Your task to perform on an android device: Show the shopping cart on target.com. Image 0: 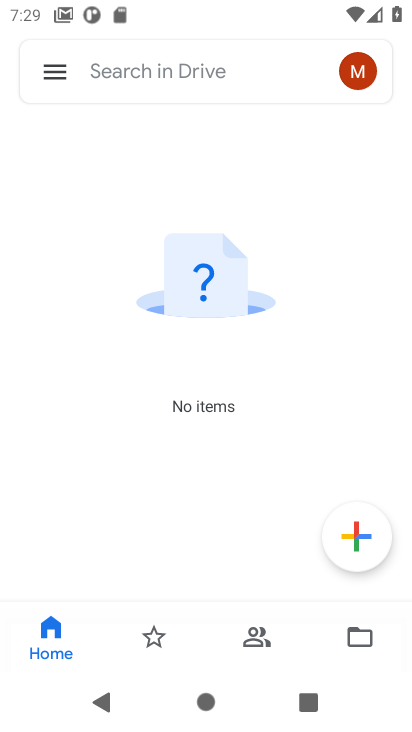
Step 0: click (256, 535)
Your task to perform on an android device: Show the shopping cart on target.com. Image 1: 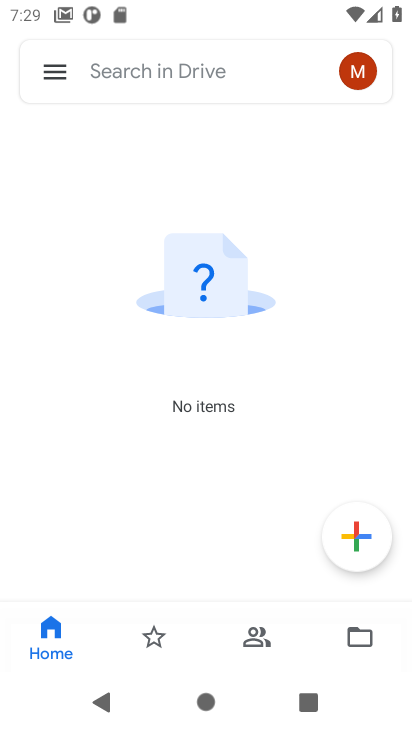
Step 1: press home button
Your task to perform on an android device: Show the shopping cart on target.com. Image 2: 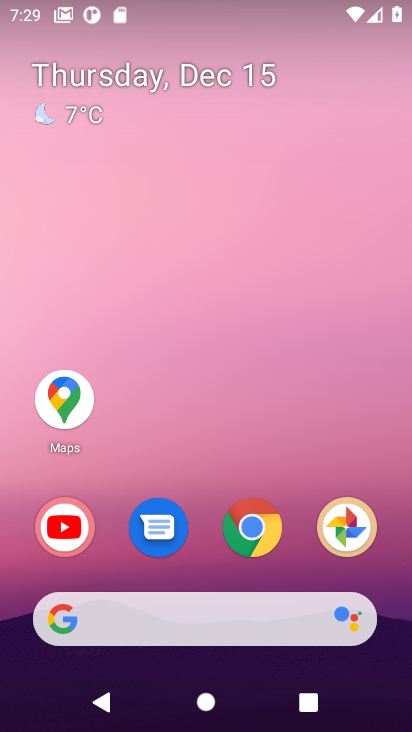
Step 2: click (242, 540)
Your task to perform on an android device: Show the shopping cart on target.com. Image 3: 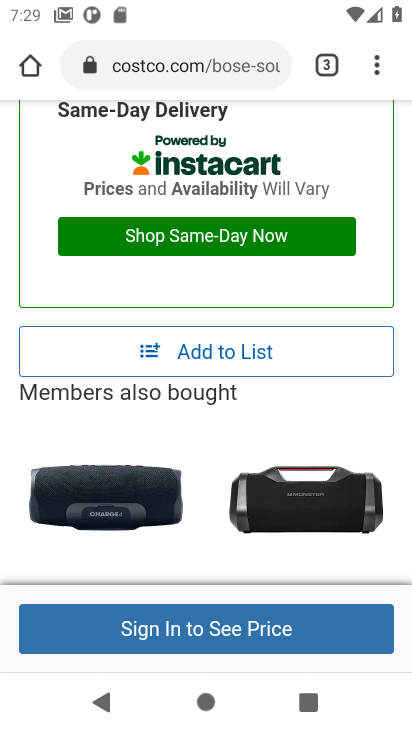
Step 3: click (93, 66)
Your task to perform on an android device: Show the shopping cart on target.com. Image 4: 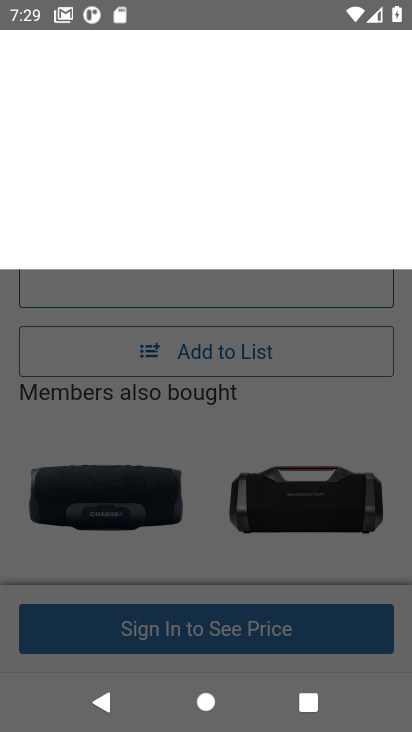
Step 4: click (143, 69)
Your task to perform on an android device: Show the shopping cart on target.com. Image 5: 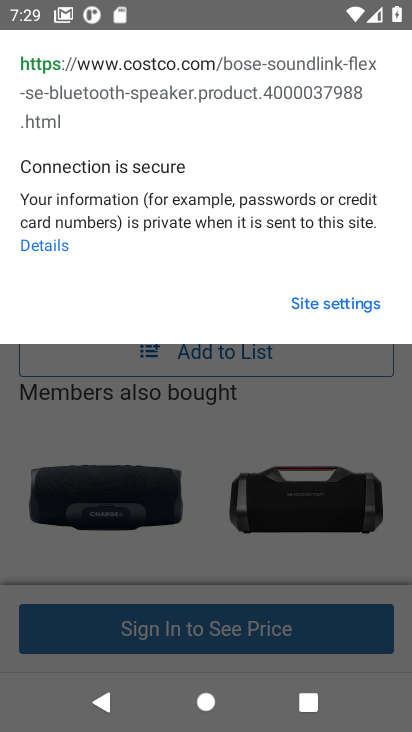
Step 5: click (260, 388)
Your task to perform on an android device: Show the shopping cart on target.com. Image 6: 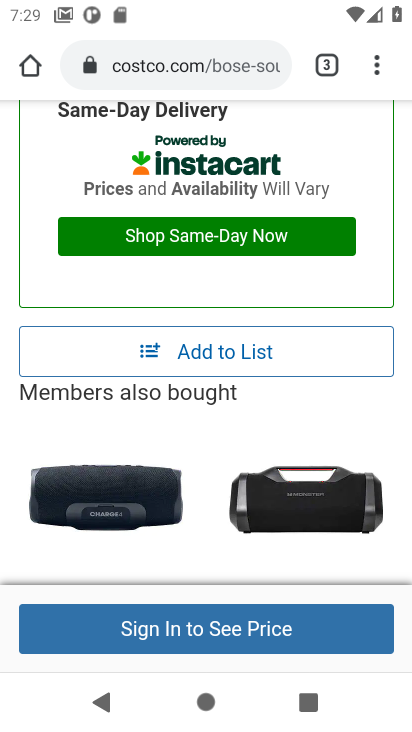
Step 6: click (250, 70)
Your task to perform on an android device: Show the shopping cart on target.com. Image 7: 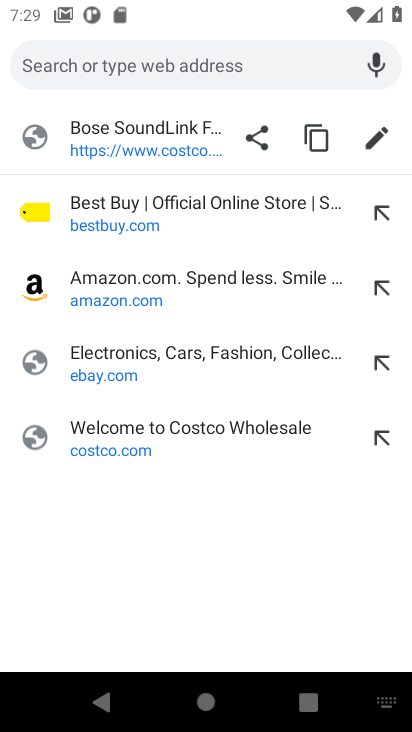
Step 7: type "target"
Your task to perform on an android device: Show the shopping cart on target.com. Image 8: 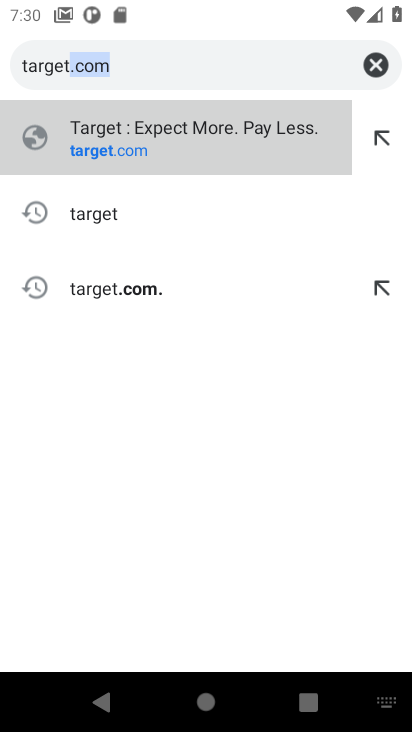
Step 8: click (217, 129)
Your task to perform on an android device: Show the shopping cart on target.com. Image 9: 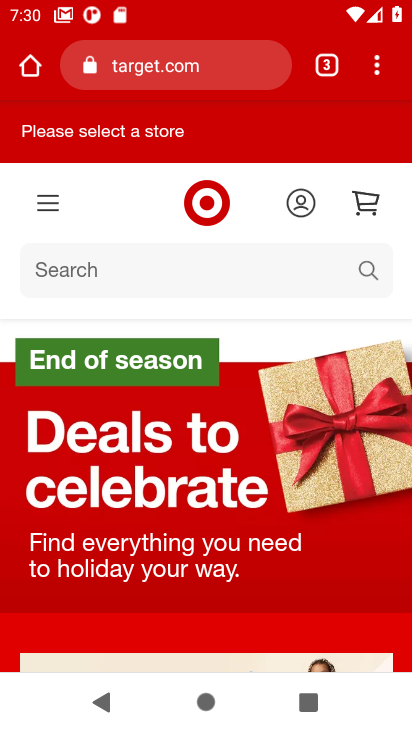
Step 9: click (152, 279)
Your task to perform on an android device: Show the shopping cart on target.com. Image 10: 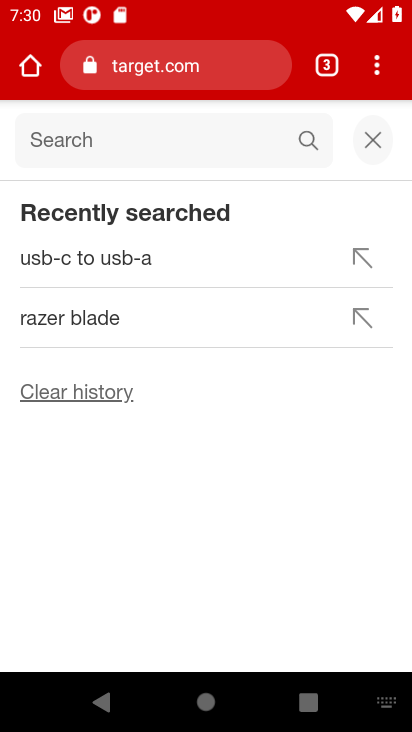
Step 10: click (401, 148)
Your task to perform on an android device: Show the shopping cart on target.com. Image 11: 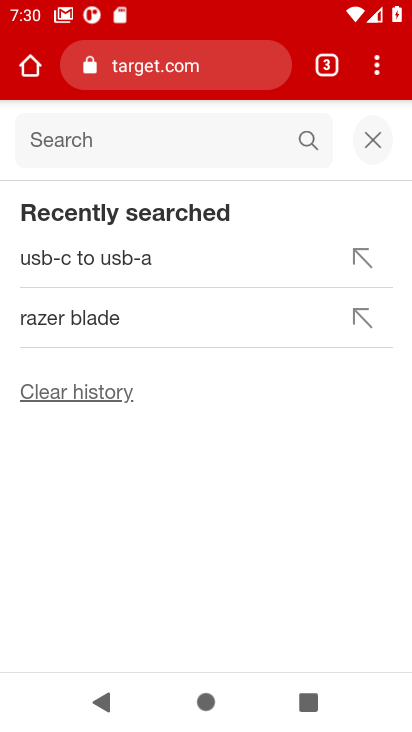
Step 11: click (373, 135)
Your task to perform on an android device: Show the shopping cart on target.com. Image 12: 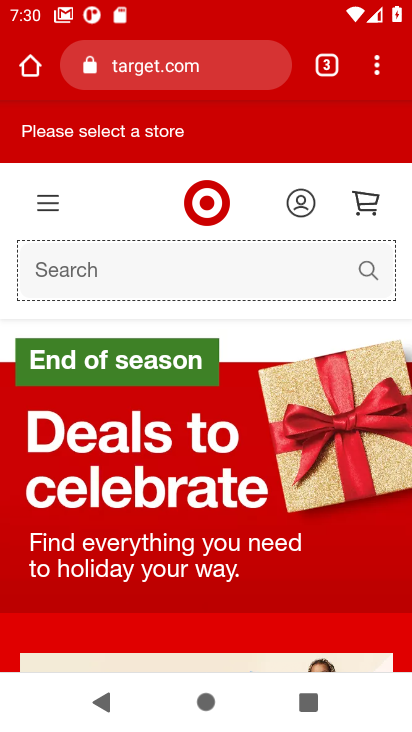
Step 12: click (348, 186)
Your task to perform on an android device: Show the shopping cart on target.com. Image 13: 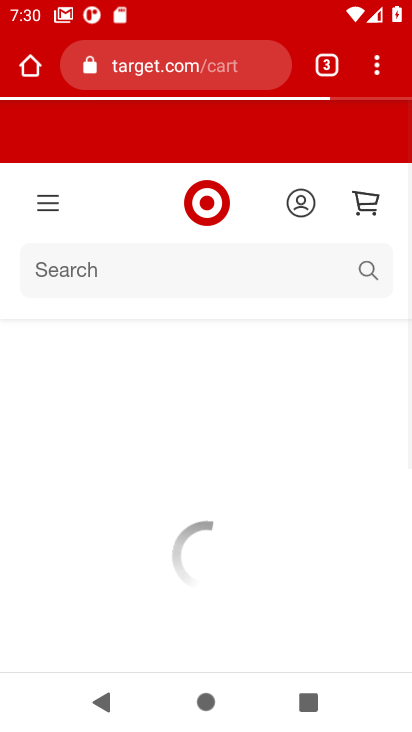
Step 13: task complete